Your task to perform on an android device: turn off airplane mode Image 0: 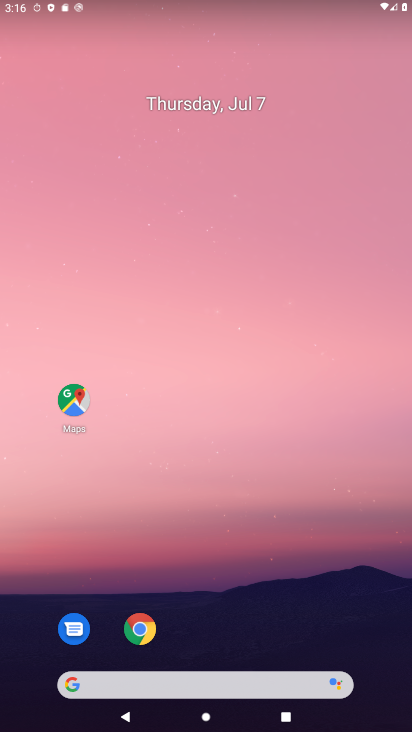
Step 0: drag from (186, 612) to (249, 10)
Your task to perform on an android device: turn off airplane mode Image 1: 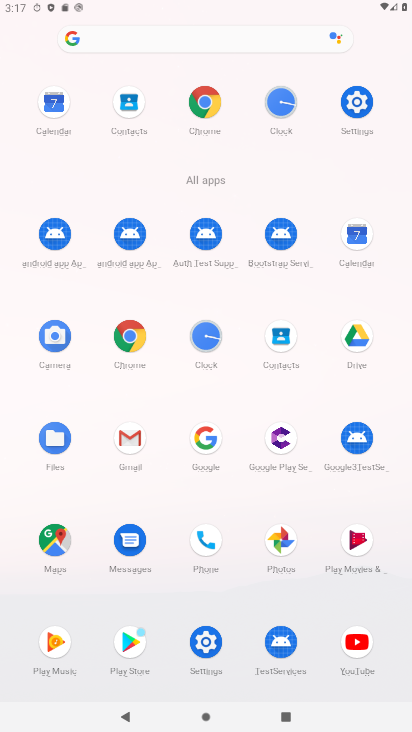
Step 1: click (362, 106)
Your task to perform on an android device: turn off airplane mode Image 2: 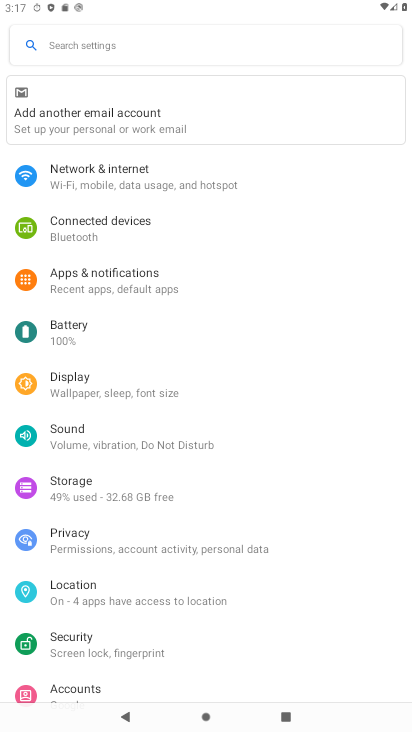
Step 2: click (101, 182)
Your task to perform on an android device: turn off airplane mode Image 3: 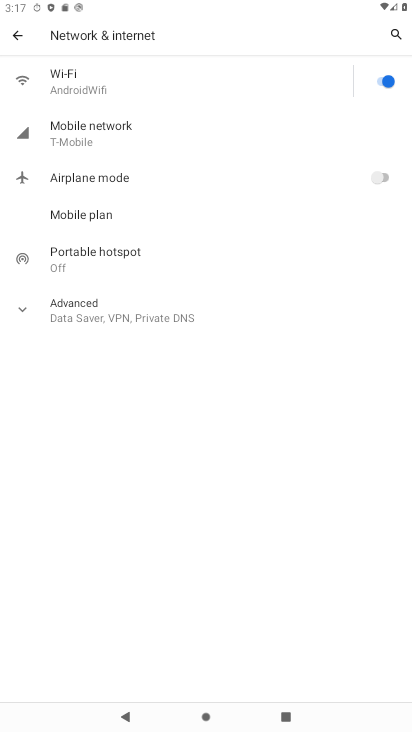
Step 3: click (388, 180)
Your task to perform on an android device: turn off airplane mode Image 4: 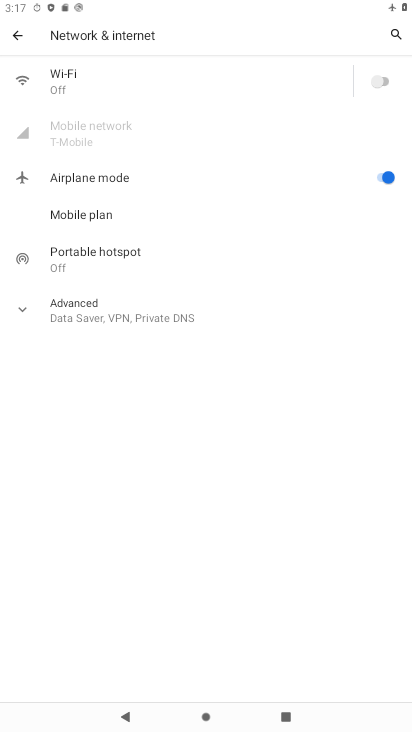
Step 4: task complete